Your task to perform on an android device: What's on my calendar today? Image 0: 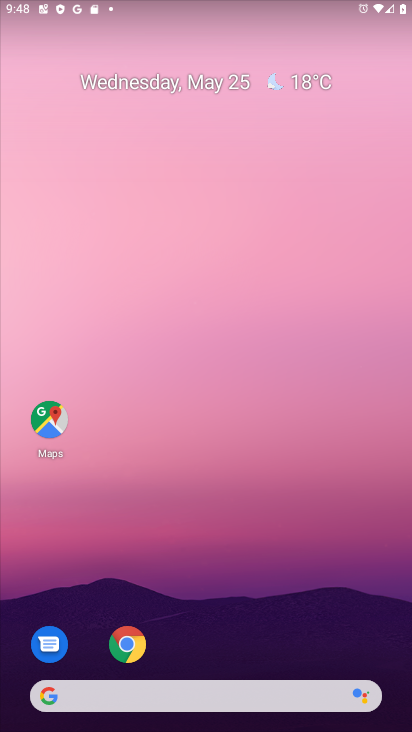
Step 0: press home button
Your task to perform on an android device: What's on my calendar today? Image 1: 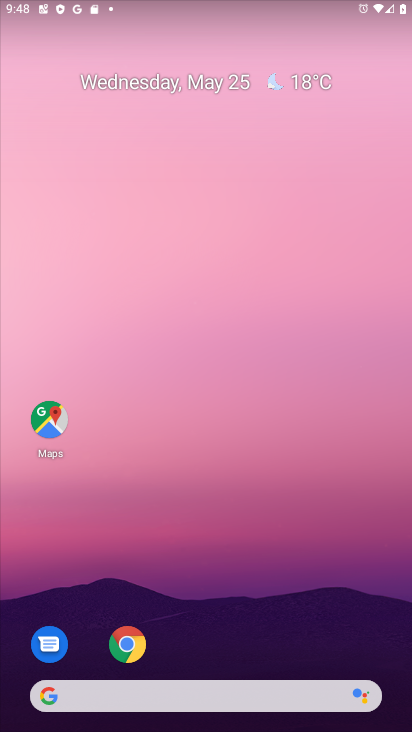
Step 1: drag from (232, 636) to (243, 60)
Your task to perform on an android device: What's on my calendar today? Image 2: 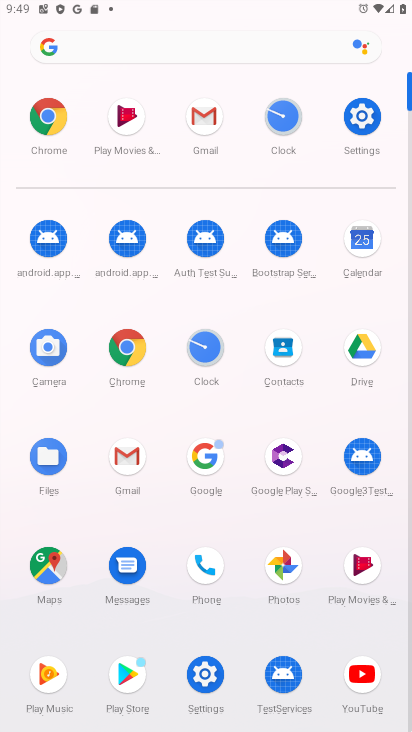
Step 2: click (362, 237)
Your task to perform on an android device: What's on my calendar today? Image 3: 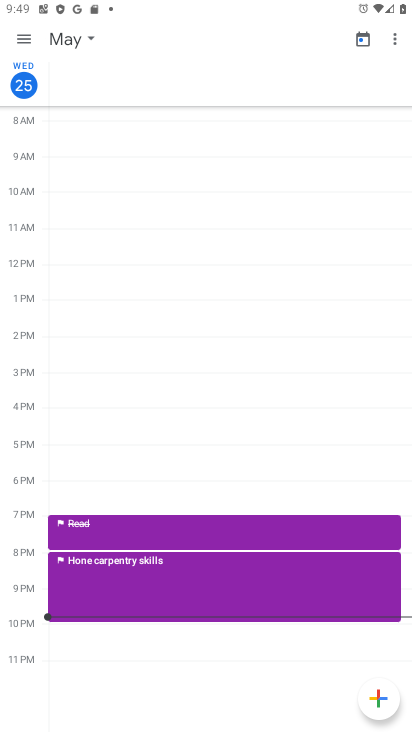
Step 3: task complete